Your task to perform on an android device: When is my next meeting? Image 0: 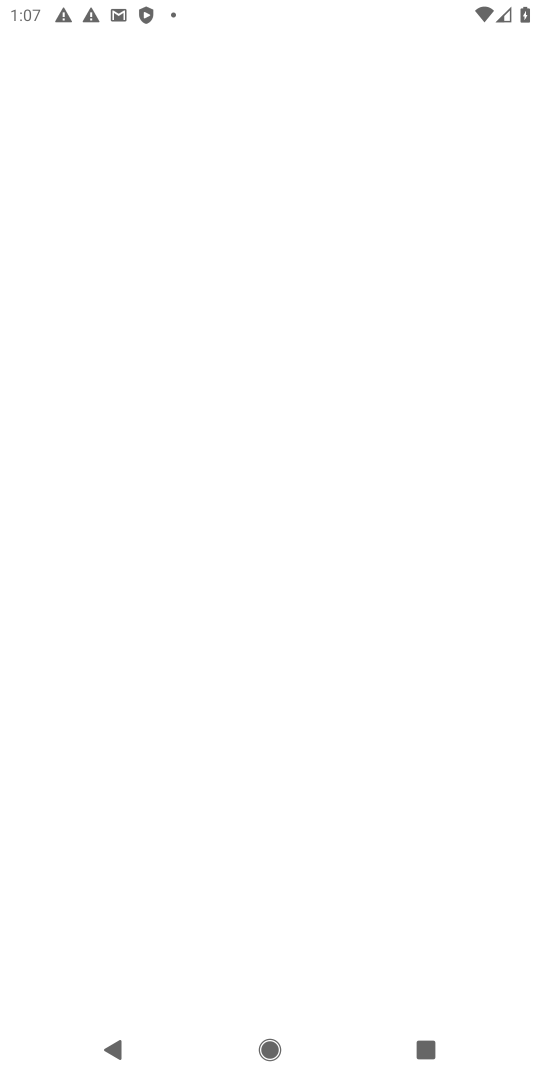
Step 0: press home button
Your task to perform on an android device: When is my next meeting? Image 1: 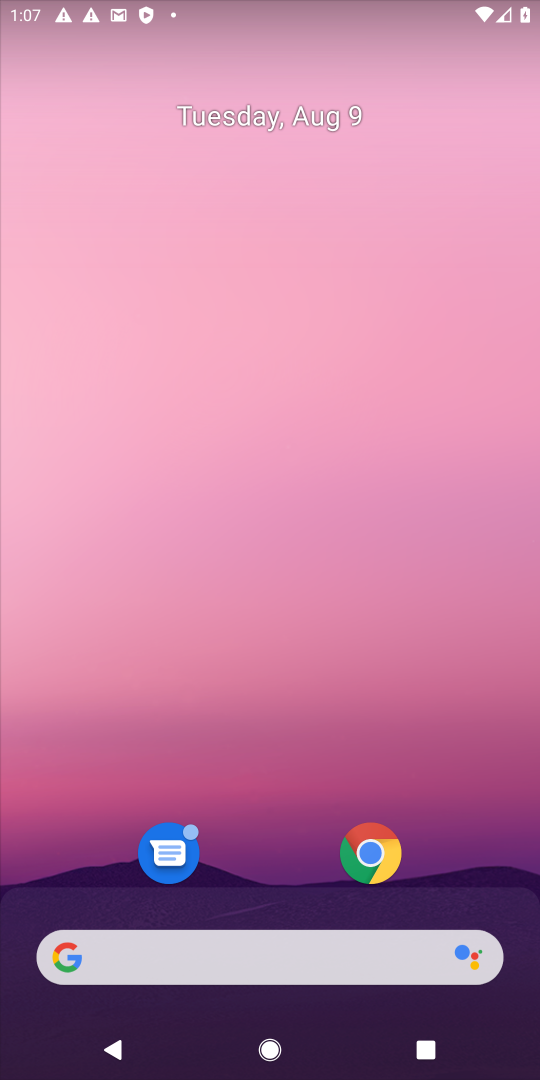
Step 1: drag from (270, 351) to (261, 46)
Your task to perform on an android device: When is my next meeting? Image 2: 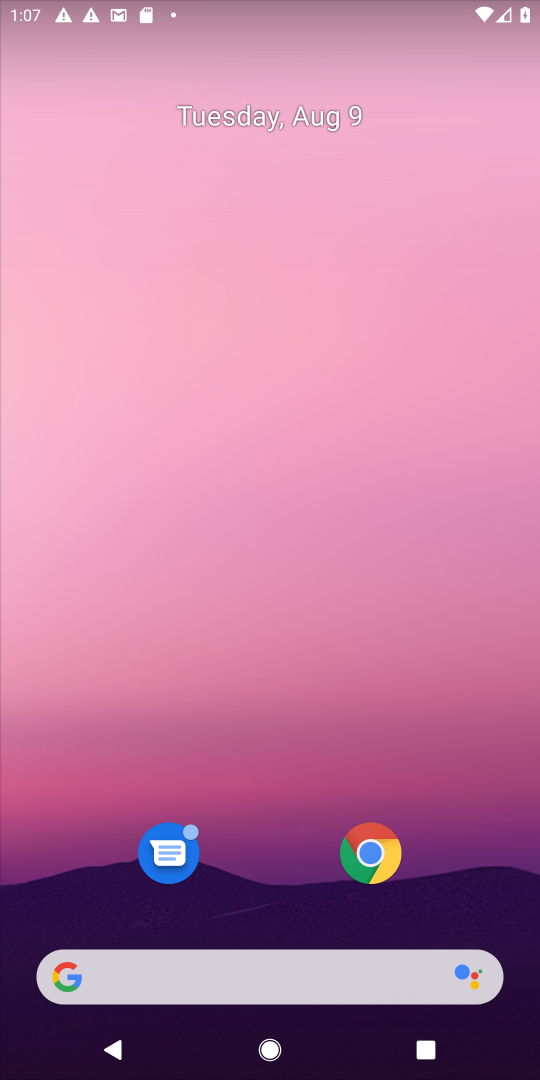
Step 2: drag from (262, 925) to (280, 90)
Your task to perform on an android device: When is my next meeting? Image 3: 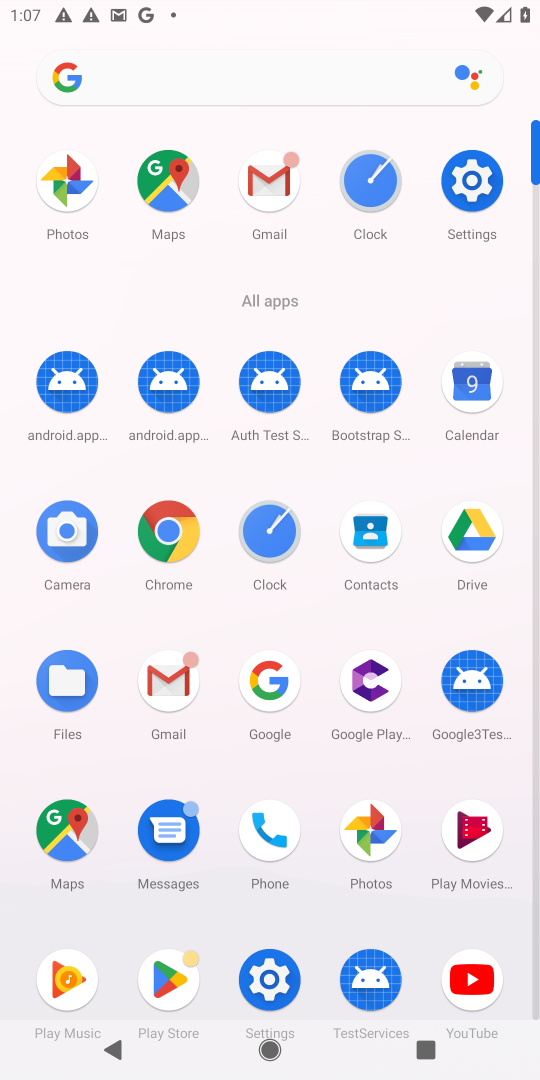
Step 3: press home button
Your task to perform on an android device: When is my next meeting? Image 4: 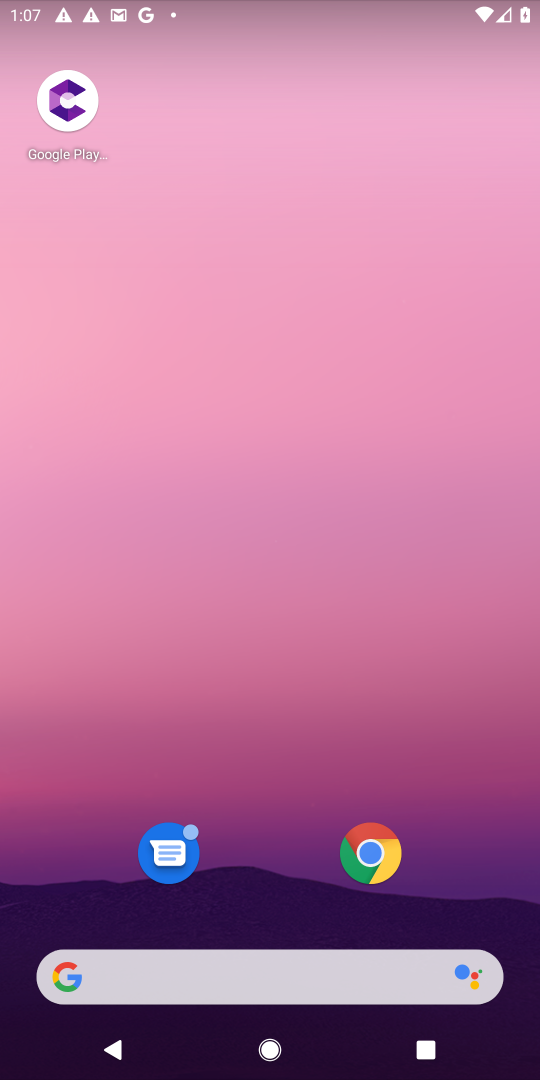
Step 4: drag from (25, 502) to (533, 513)
Your task to perform on an android device: When is my next meeting? Image 5: 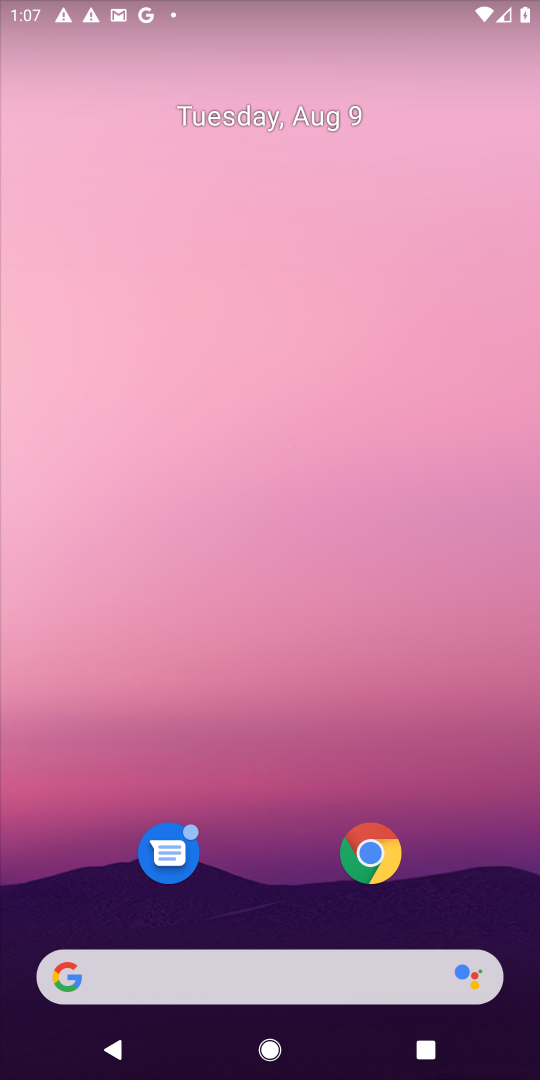
Step 5: drag from (266, 918) to (302, 65)
Your task to perform on an android device: When is my next meeting? Image 6: 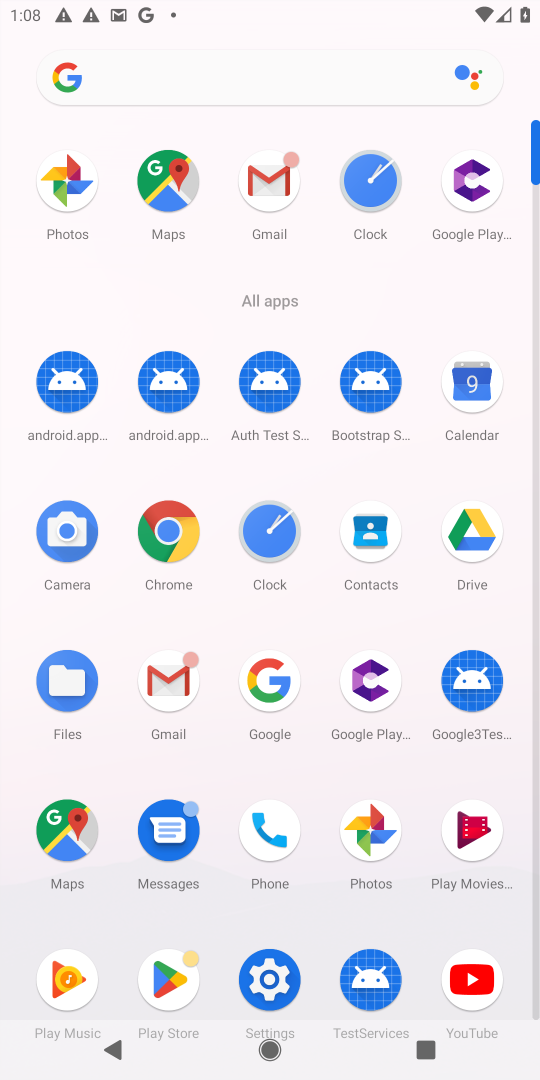
Step 6: click (463, 372)
Your task to perform on an android device: When is my next meeting? Image 7: 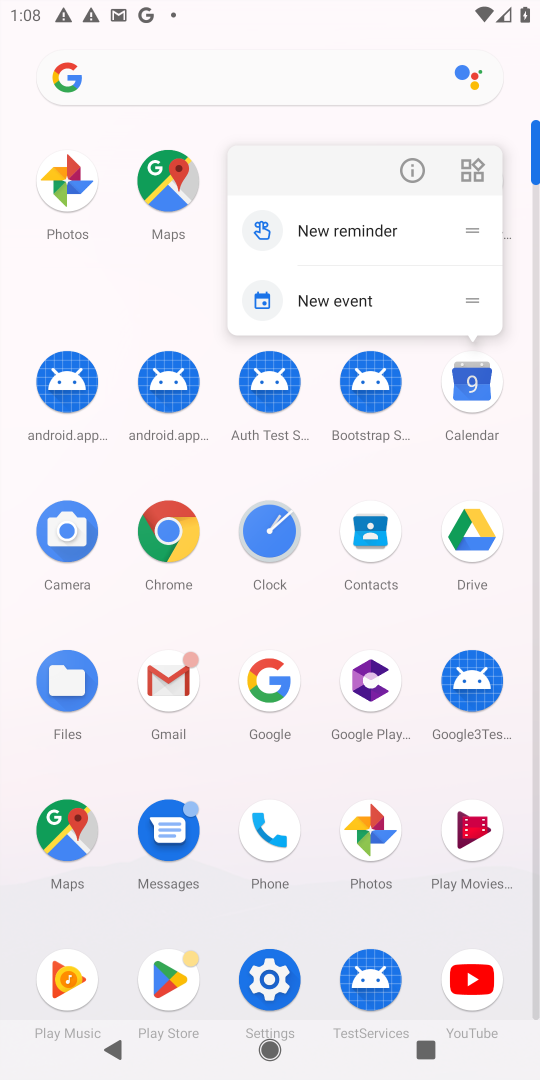
Step 7: click (468, 375)
Your task to perform on an android device: When is my next meeting? Image 8: 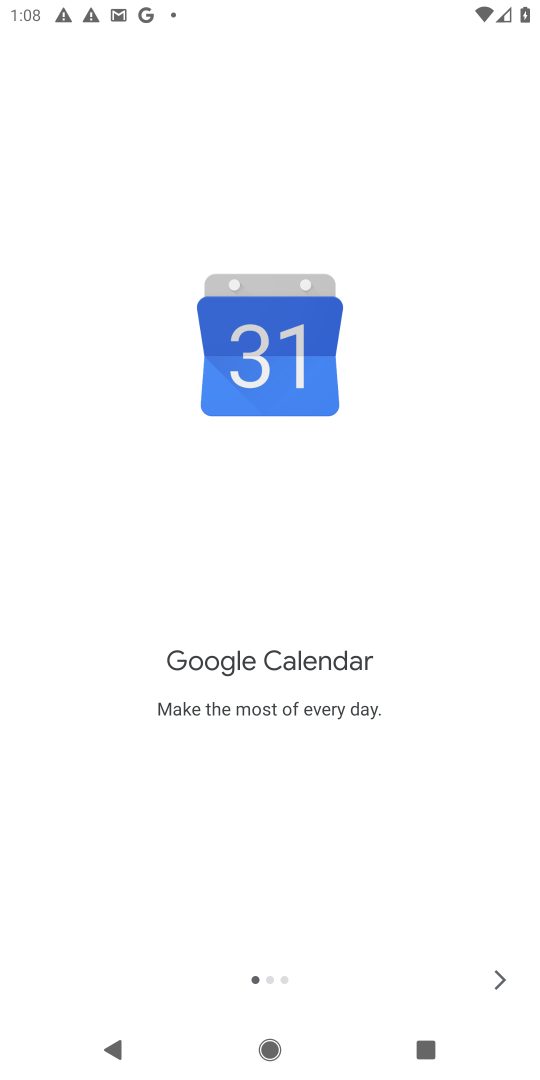
Step 8: click (496, 972)
Your task to perform on an android device: When is my next meeting? Image 9: 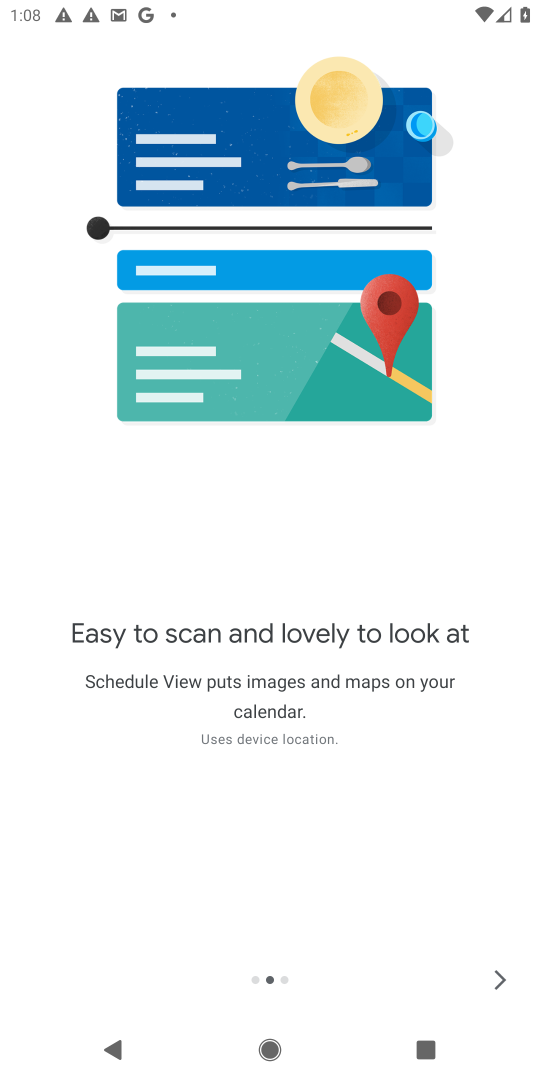
Step 9: click (496, 972)
Your task to perform on an android device: When is my next meeting? Image 10: 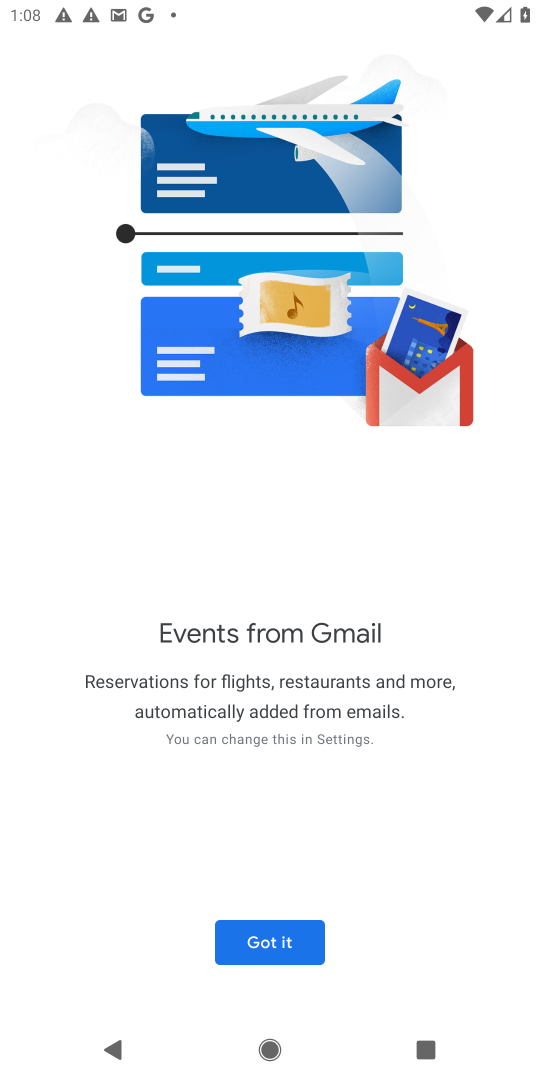
Step 10: click (275, 945)
Your task to perform on an android device: When is my next meeting? Image 11: 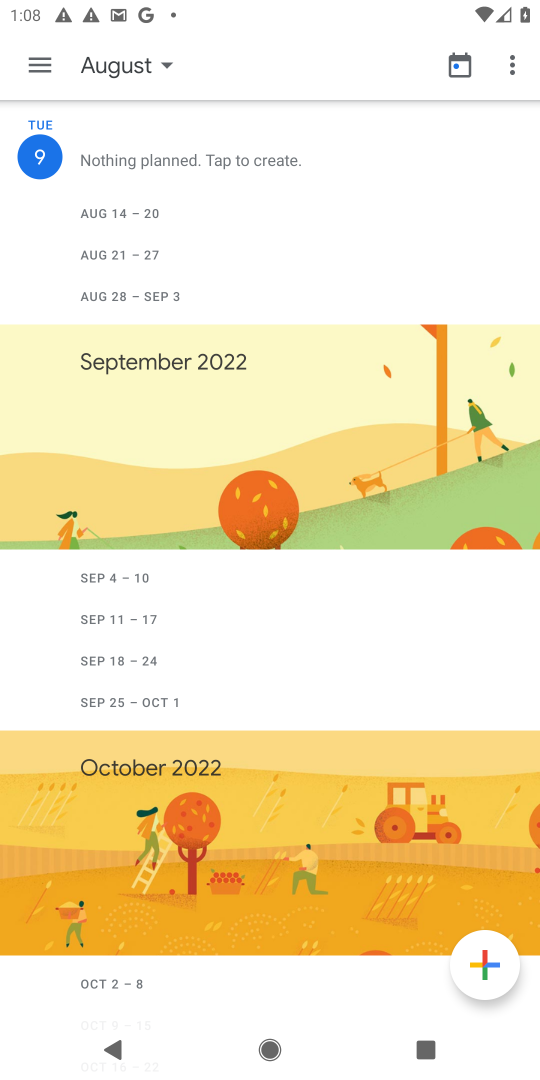
Step 11: task complete